Your task to perform on an android device: Go to network settings Image 0: 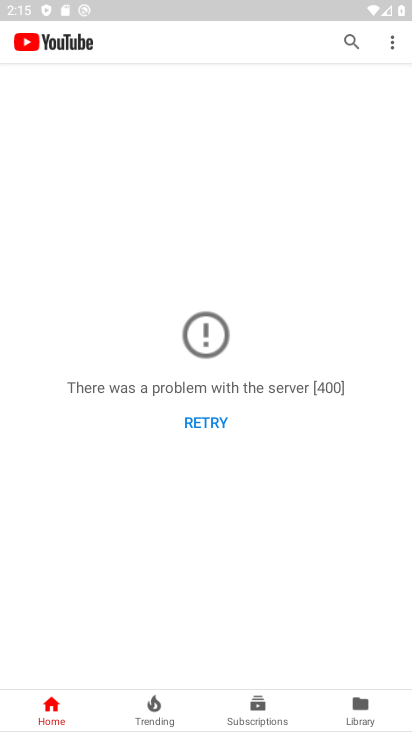
Step 0: press back button
Your task to perform on an android device: Go to network settings Image 1: 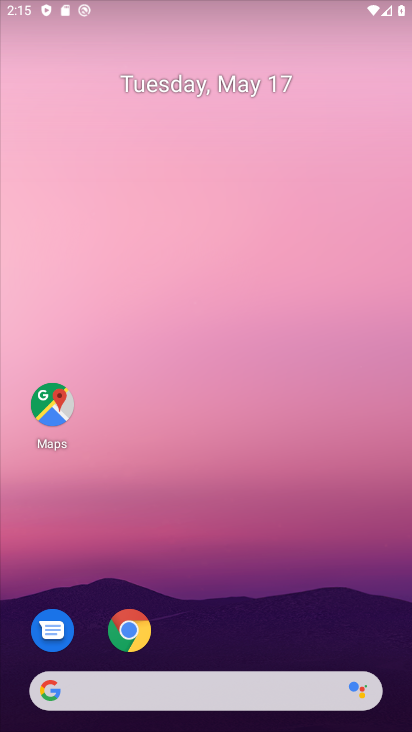
Step 1: drag from (231, 513) to (244, 306)
Your task to perform on an android device: Go to network settings Image 2: 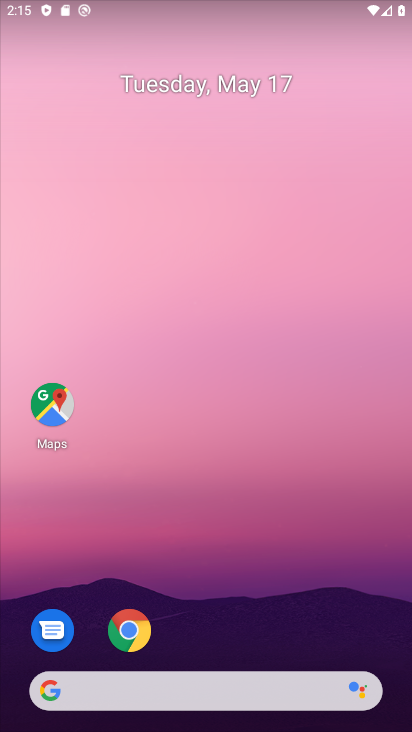
Step 2: drag from (179, 547) to (207, 238)
Your task to perform on an android device: Go to network settings Image 3: 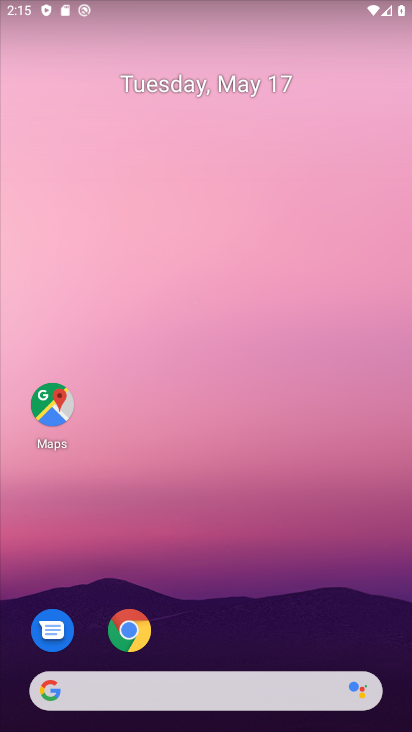
Step 3: drag from (219, 685) to (294, 171)
Your task to perform on an android device: Go to network settings Image 4: 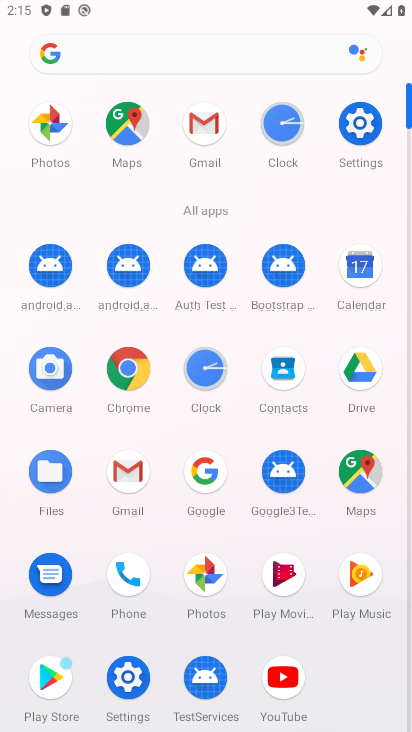
Step 4: click (356, 121)
Your task to perform on an android device: Go to network settings Image 5: 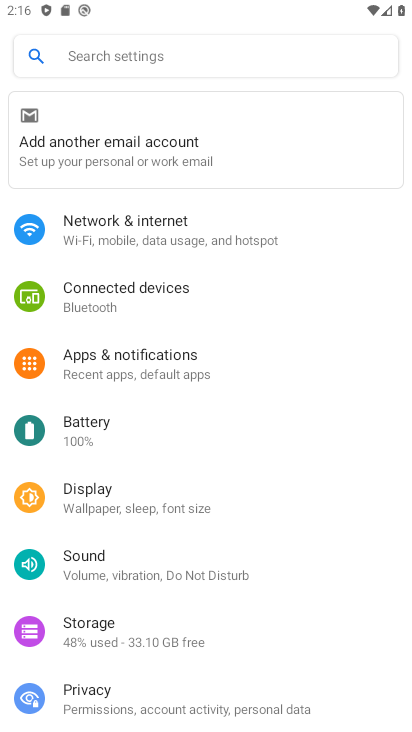
Step 5: click (153, 228)
Your task to perform on an android device: Go to network settings Image 6: 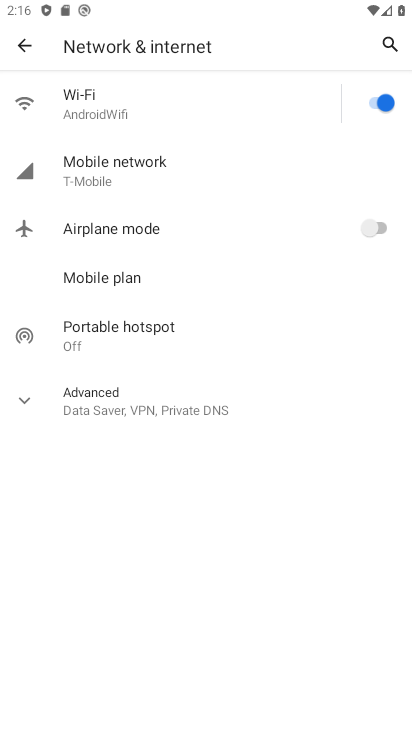
Step 6: click (166, 403)
Your task to perform on an android device: Go to network settings Image 7: 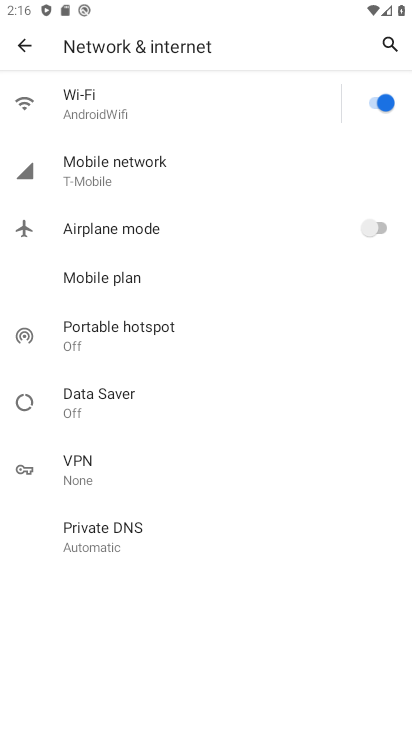
Step 7: task complete